Your task to perform on an android device: Go to location settings Image 0: 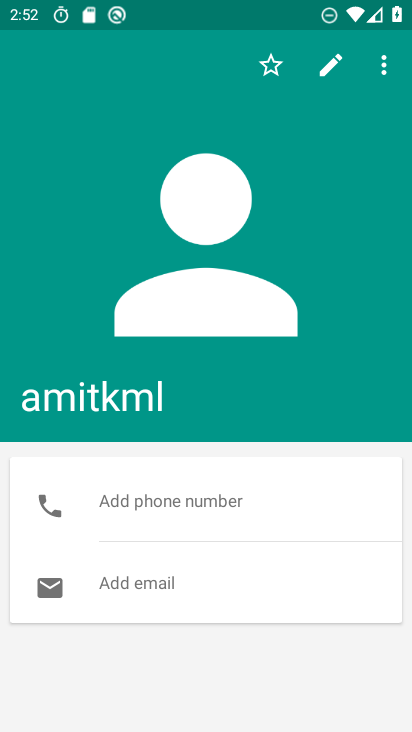
Step 0: press home button
Your task to perform on an android device: Go to location settings Image 1: 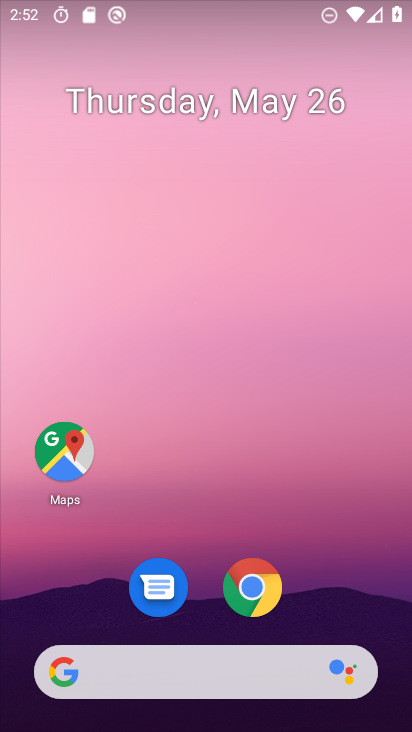
Step 1: drag from (273, 379) to (241, 125)
Your task to perform on an android device: Go to location settings Image 2: 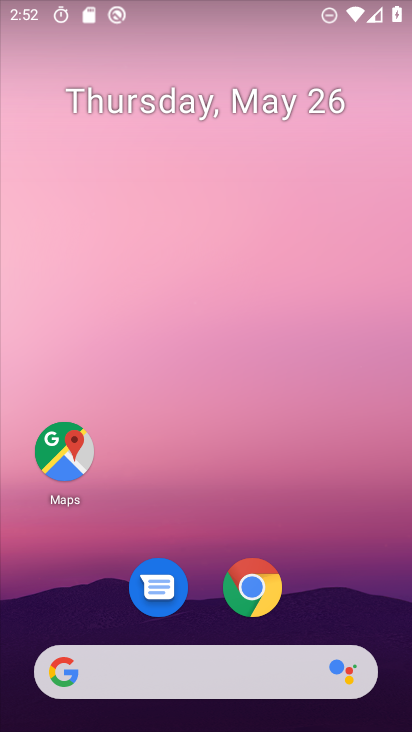
Step 2: drag from (348, 590) to (298, 146)
Your task to perform on an android device: Go to location settings Image 3: 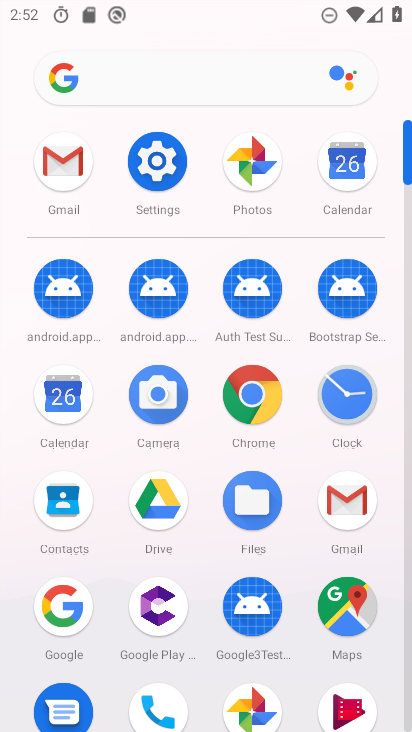
Step 3: click (168, 158)
Your task to perform on an android device: Go to location settings Image 4: 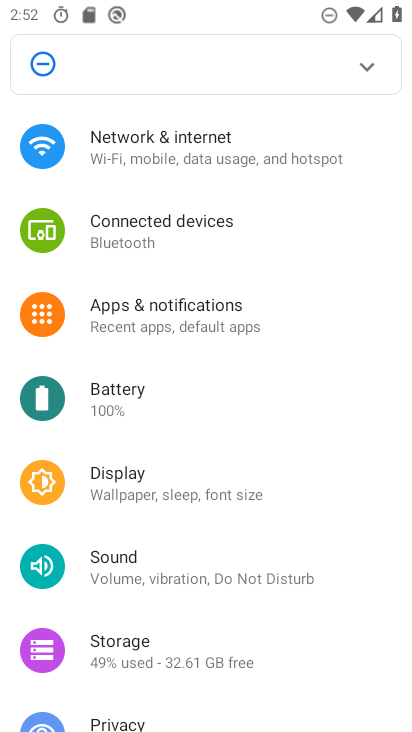
Step 4: drag from (262, 617) to (324, 216)
Your task to perform on an android device: Go to location settings Image 5: 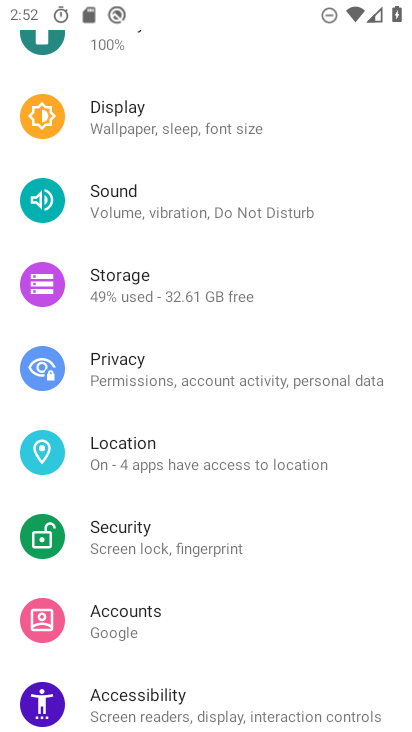
Step 5: click (147, 459)
Your task to perform on an android device: Go to location settings Image 6: 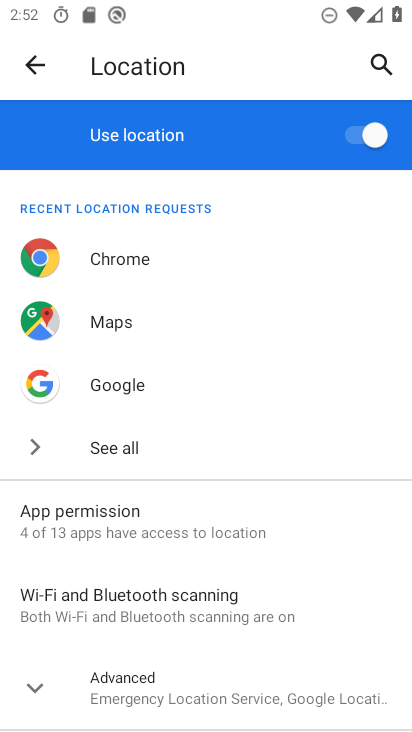
Step 6: task complete